Your task to perform on an android device: turn on bluetooth scan Image 0: 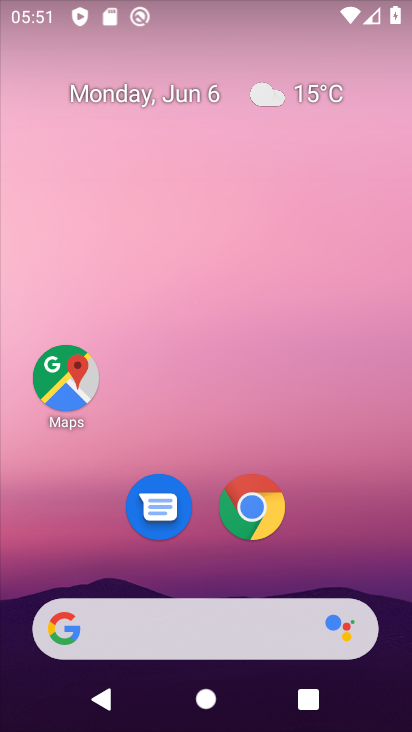
Step 0: drag from (273, 544) to (156, 6)
Your task to perform on an android device: turn on bluetooth scan Image 1: 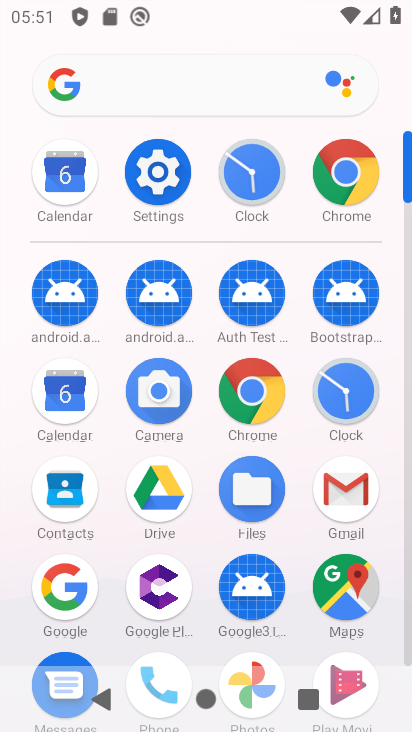
Step 1: click (156, 177)
Your task to perform on an android device: turn on bluetooth scan Image 2: 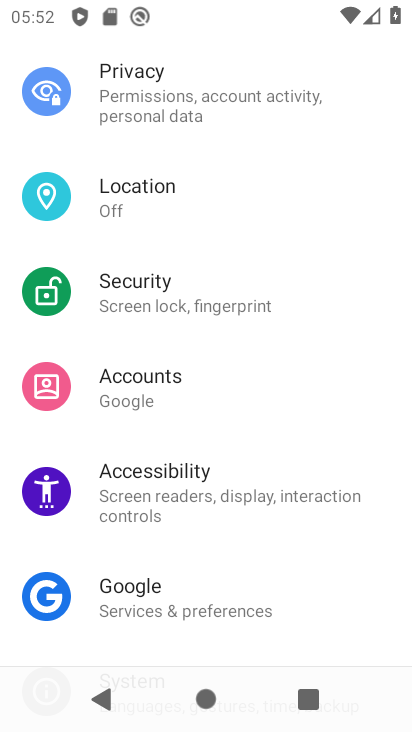
Step 2: drag from (152, 551) to (227, 174)
Your task to perform on an android device: turn on bluetooth scan Image 3: 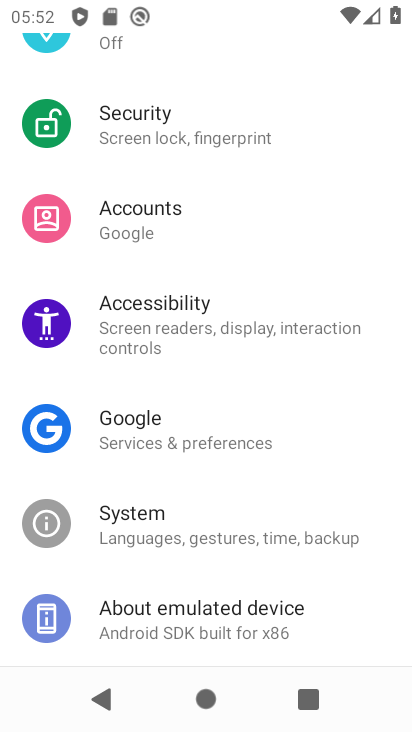
Step 3: drag from (140, 266) to (148, 704)
Your task to perform on an android device: turn on bluetooth scan Image 4: 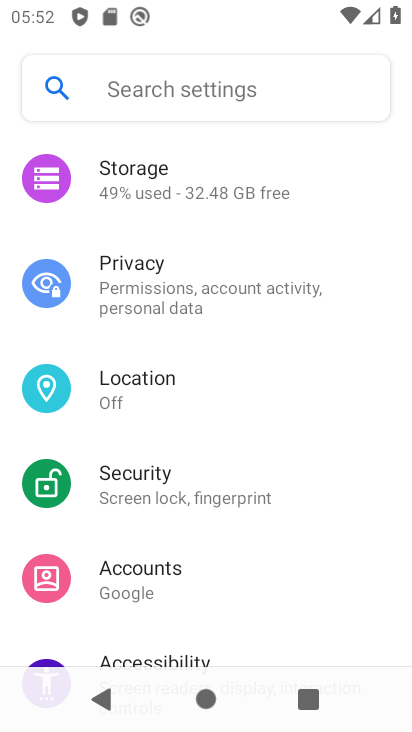
Step 4: drag from (146, 338) to (140, 679)
Your task to perform on an android device: turn on bluetooth scan Image 5: 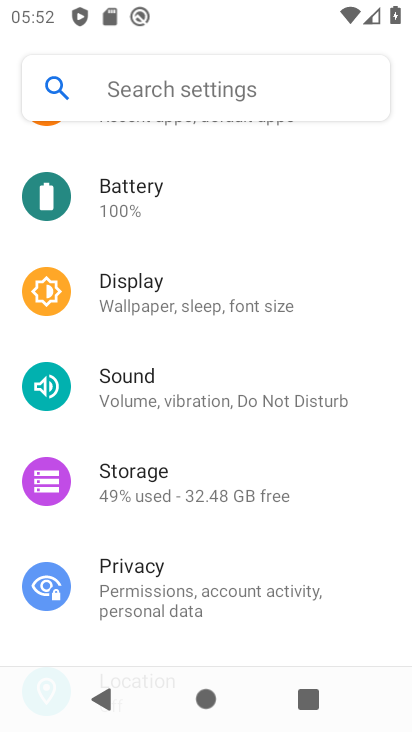
Step 5: drag from (148, 620) to (171, 143)
Your task to perform on an android device: turn on bluetooth scan Image 6: 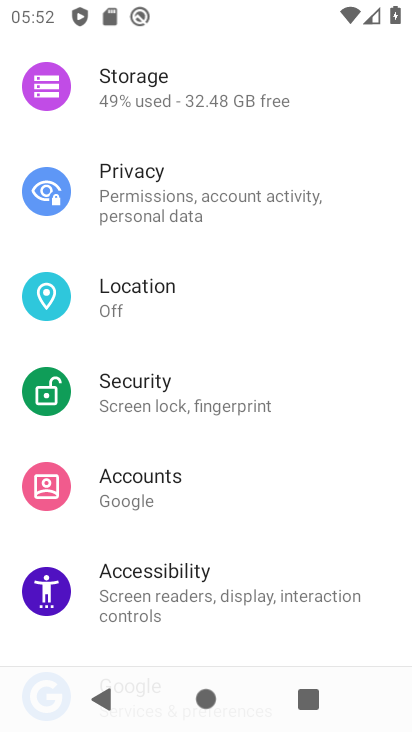
Step 6: click (140, 314)
Your task to perform on an android device: turn on bluetooth scan Image 7: 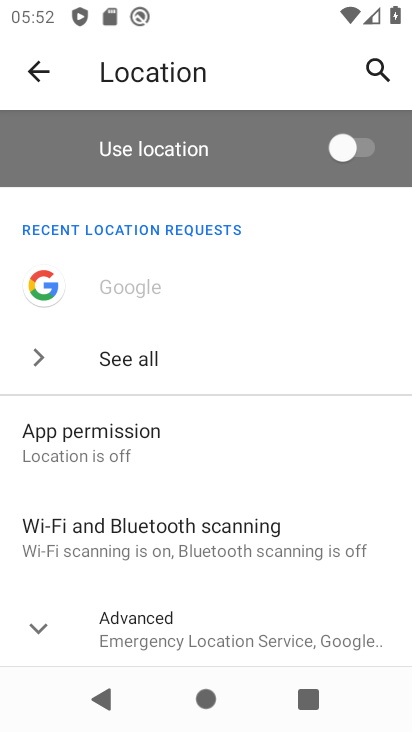
Step 7: drag from (177, 570) to (205, 200)
Your task to perform on an android device: turn on bluetooth scan Image 8: 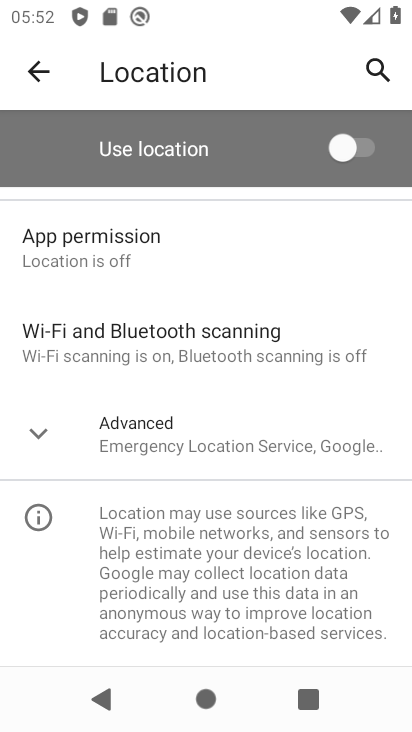
Step 8: click (116, 434)
Your task to perform on an android device: turn on bluetooth scan Image 9: 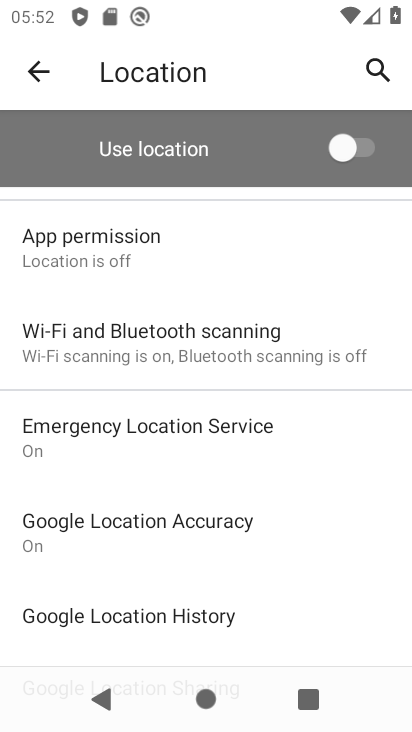
Step 9: drag from (183, 552) to (189, 287)
Your task to perform on an android device: turn on bluetooth scan Image 10: 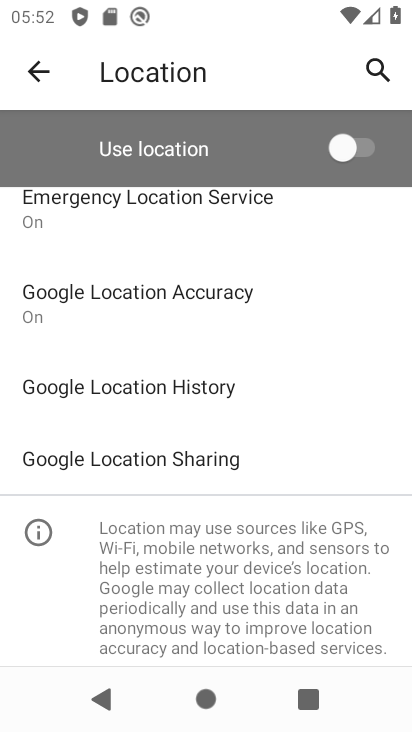
Step 10: drag from (180, 300) to (181, 715)
Your task to perform on an android device: turn on bluetooth scan Image 11: 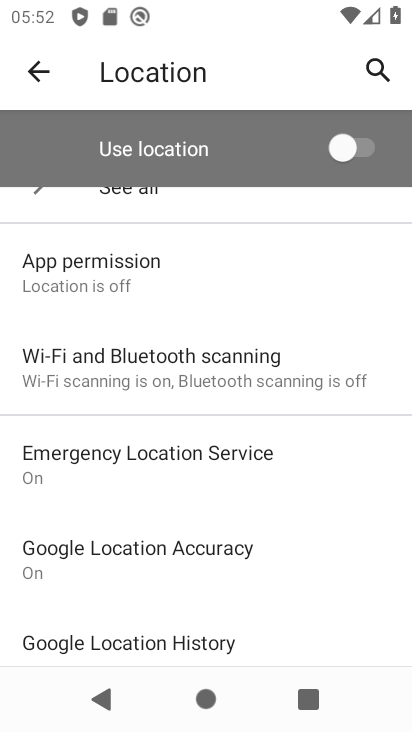
Step 11: click (228, 349)
Your task to perform on an android device: turn on bluetooth scan Image 12: 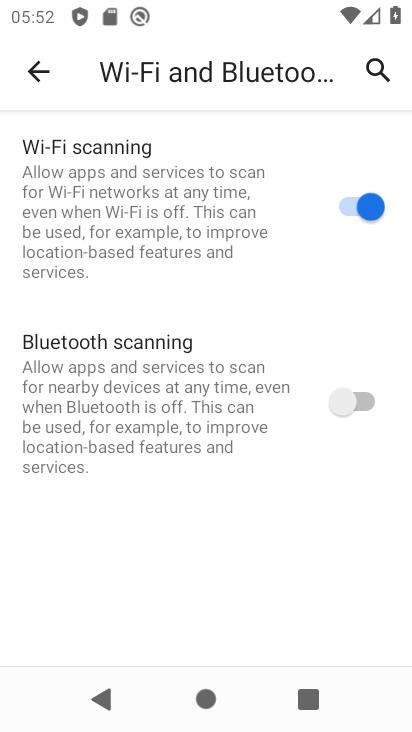
Step 12: click (383, 401)
Your task to perform on an android device: turn on bluetooth scan Image 13: 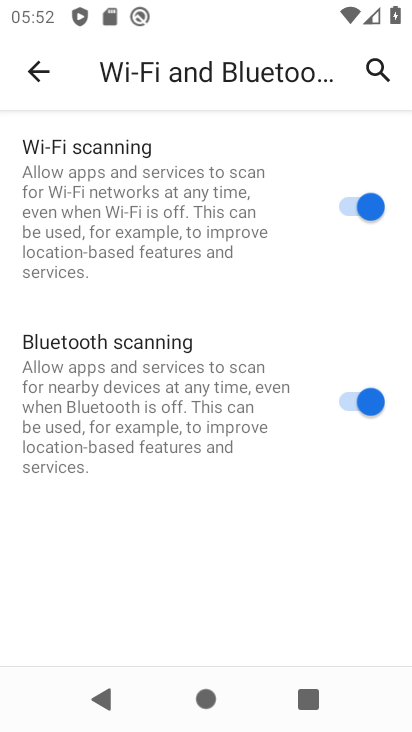
Step 13: task complete